Your task to perform on an android device: turn off improve location accuracy Image 0: 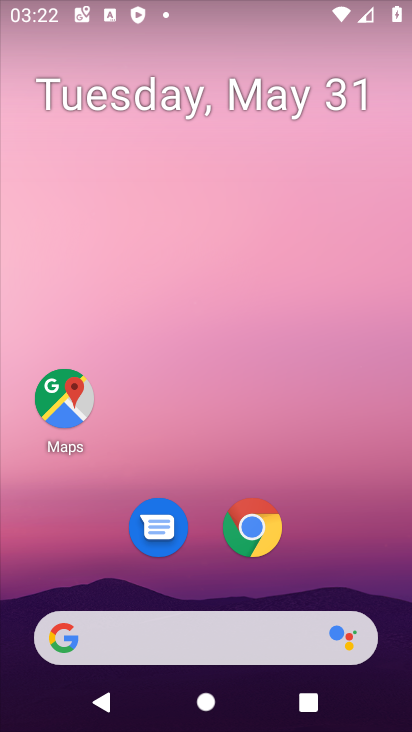
Step 0: drag from (394, 640) to (330, 106)
Your task to perform on an android device: turn off improve location accuracy Image 1: 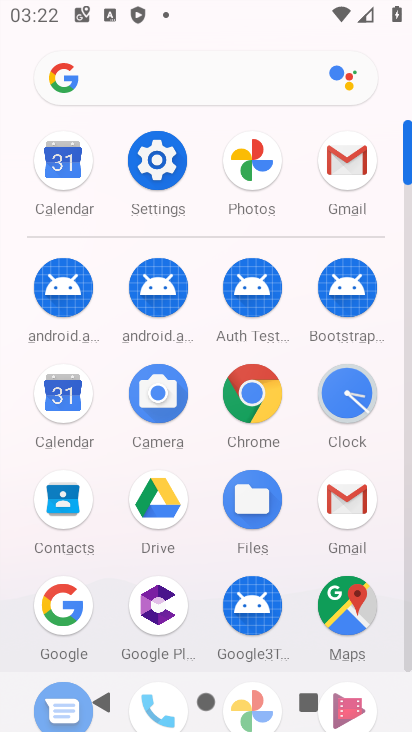
Step 1: click (410, 656)
Your task to perform on an android device: turn off improve location accuracy Image 2: 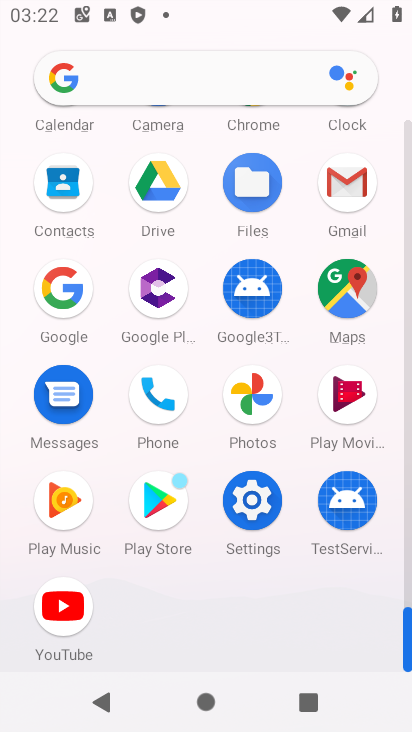
Step 2: click (251, 496)
Your task to perform on an android device: turn off improve location accuracy Image 3: 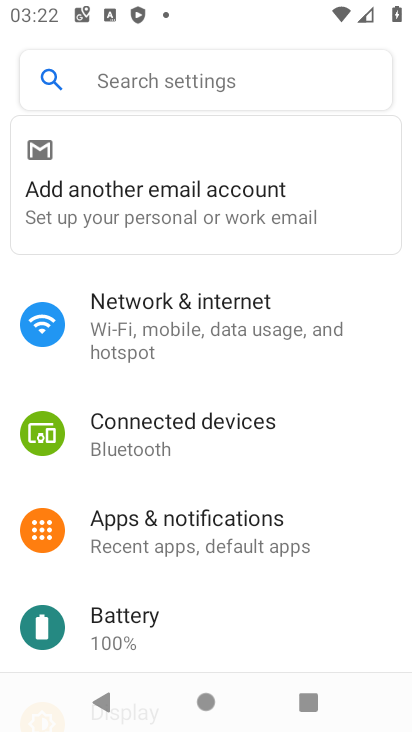
Step 3: drag from (331, 624) to (295, 138)
Your task to perform on an android device: turn off improve location accuracy Image 4: 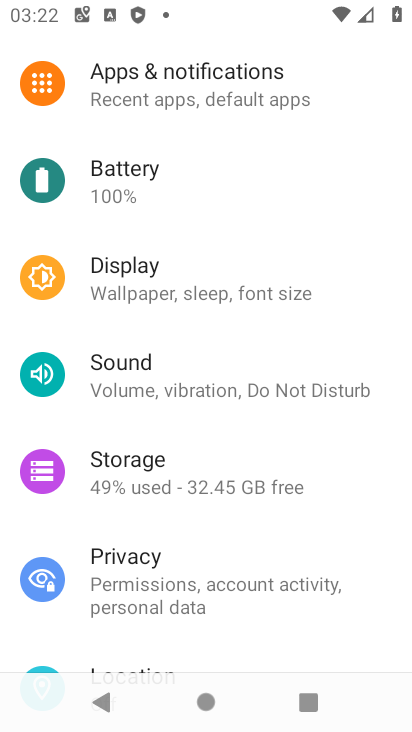
Step 4: drag from (320, 577) to (302, 110)
Your task to perform on an android device: turn off improve location accuracy Image 5: 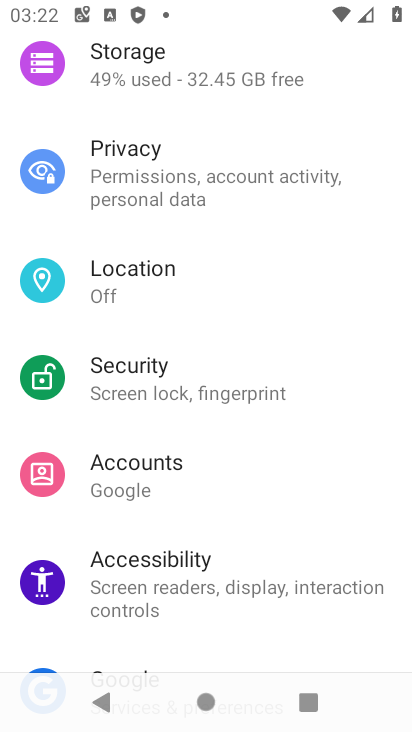
Step 5: click (103, 264)
Your task to perform on an android device: turn off improve location accuracy Image 6: 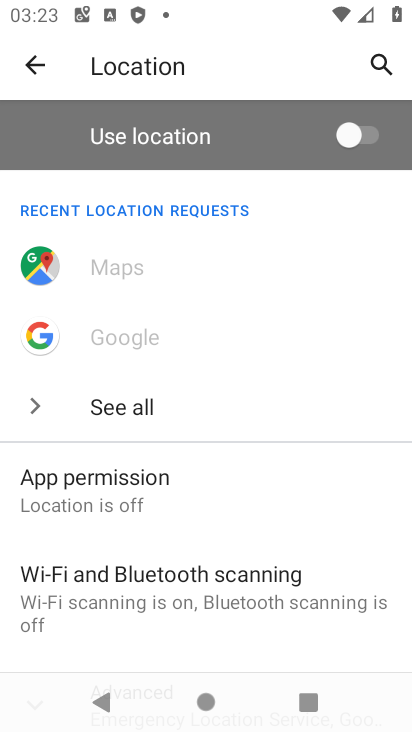
Step 6: drag from (215, 560) to (225, 200)
Your task to perform on an android device: turn off improve location accuracy Image 7: 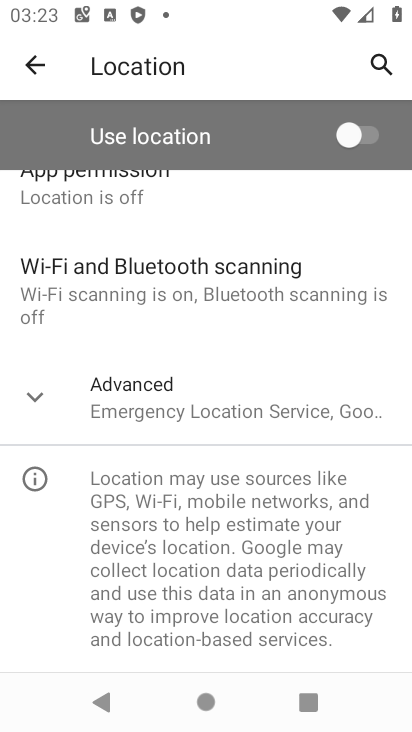
Step 7: click (39, 392)
Your task to perform on an android device: turn off improve location accuracy Image 8: 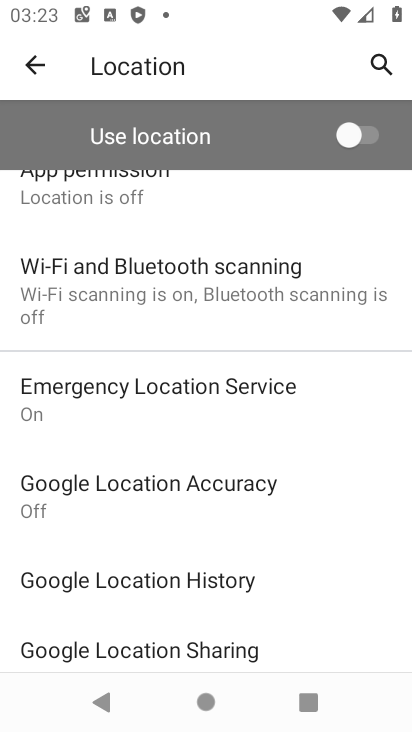
Step 8: click (114, 472)
Your task to perform on an android device: turn off improve location accuracy Image 9: 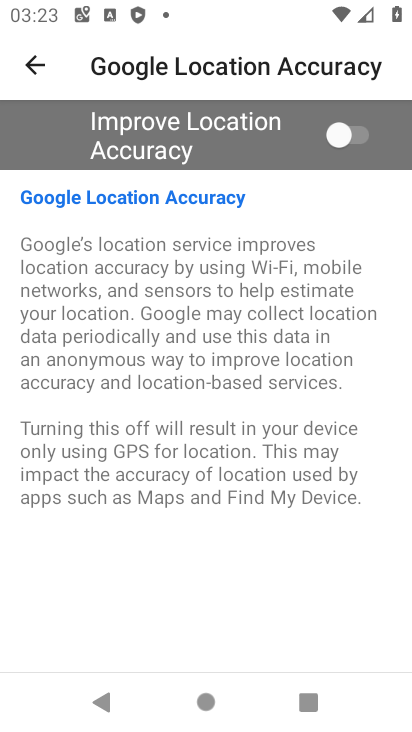
Step 9: task complete